Your task to perform on an android device: Open the calendar and show me this week's events? Image 0: 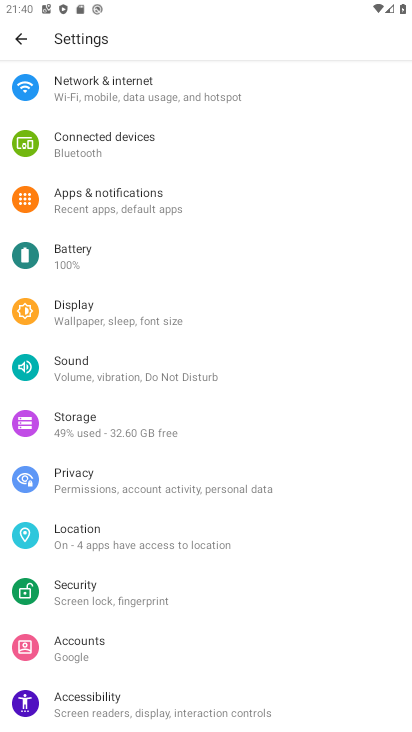
Step 0: press home button
Your task to perform on an android device: Open the calendar and show me this week's events? Image 1: 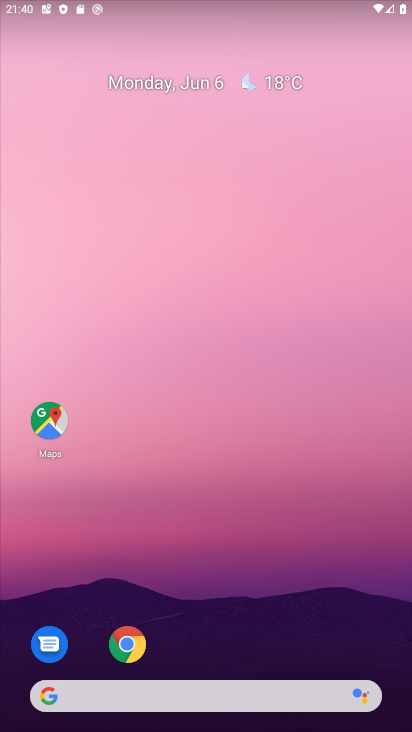
Step 1: drag from (362, 568) to (319, 139)
Your task to perform on an android device: Open the calendar and show me this week's events? Image 2: 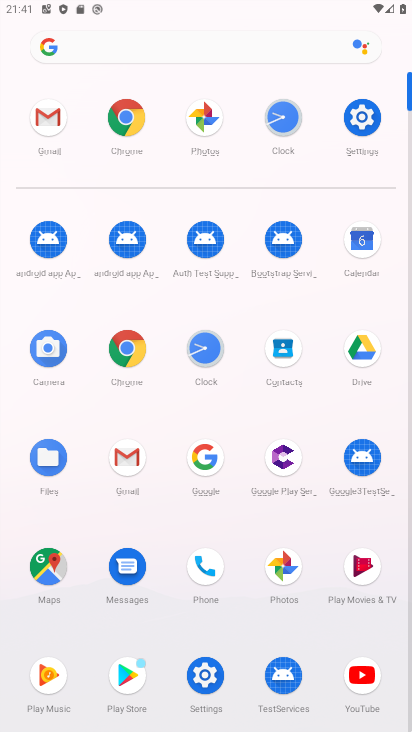
Step 2: click (364, 235)
Your task to perform on an android device: Open the calendar and show me this week's events? Image 3: 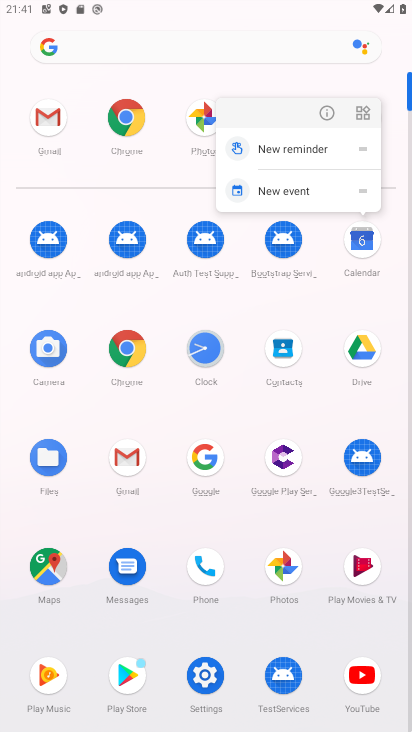
Step 3: click (365, 247)
Your task to perform on an android device: Open the calendar and show me this week's events? Image 4: 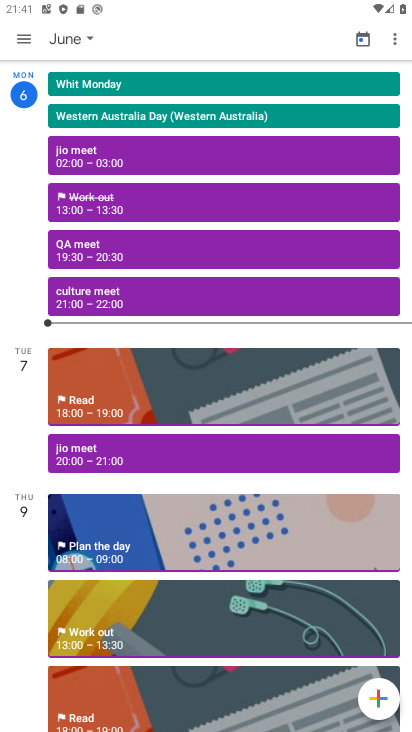
Step 4: click (75, 39)
Your task to perform on an android device: Open the calendar and show me this week's events? Image 5: 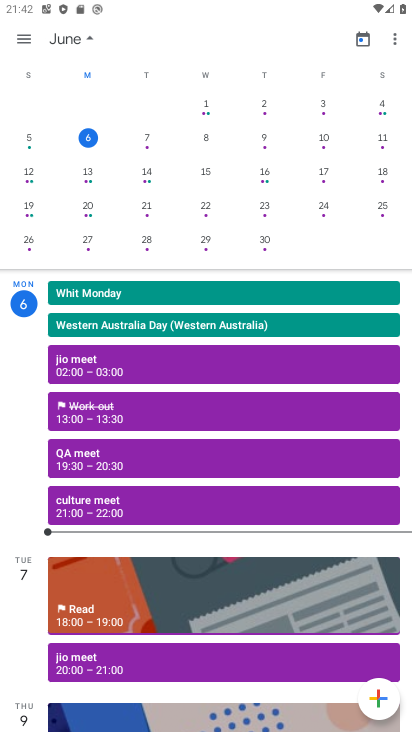
Step 5: task complete